Your task to perform on an android device: Search for Italian restaurants on Maps Image 0: 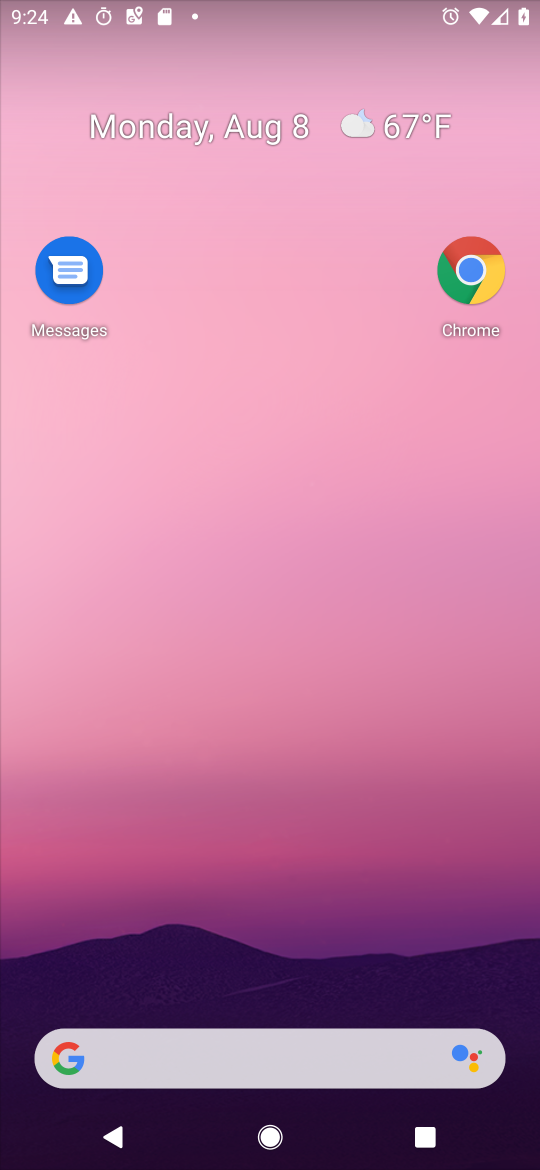
Step 0: click (205, 188)
Your task to perform on an android device: Search for Italian restaurants on Maps Image 1: 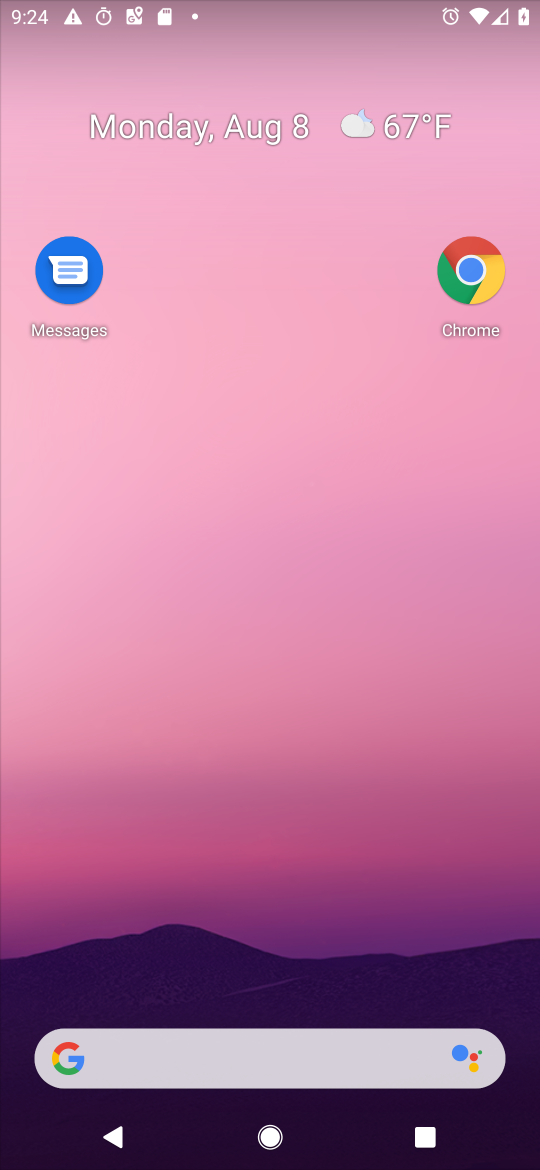
Step 1: press home button
Your task to perform on an android device: Search for Italian restaurants on Maps Image 2: 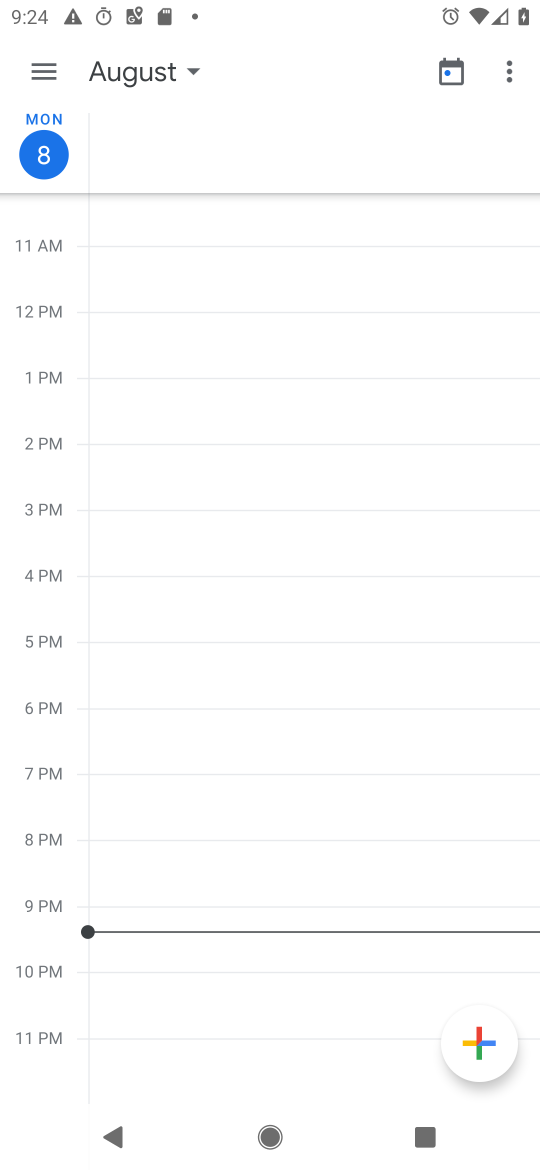
Step 2: click (289, 198)
Your task to perform on an android device: Search for Italian restaurants on Maps Image 3: 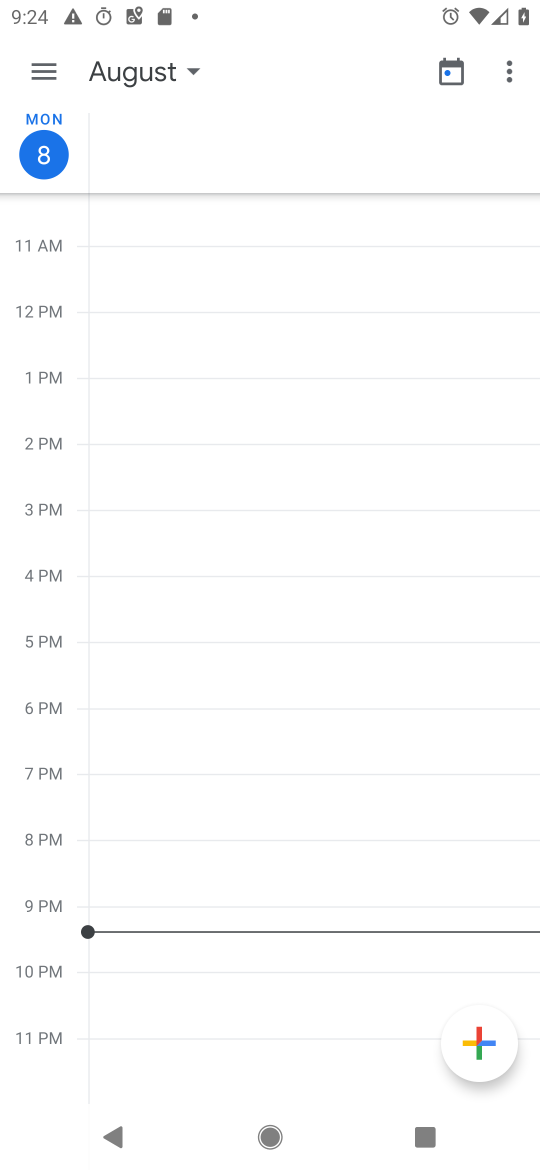
Step 3: press home button
Your task to perform on an android device: Search for Italian restaurants on Maps Image 4: 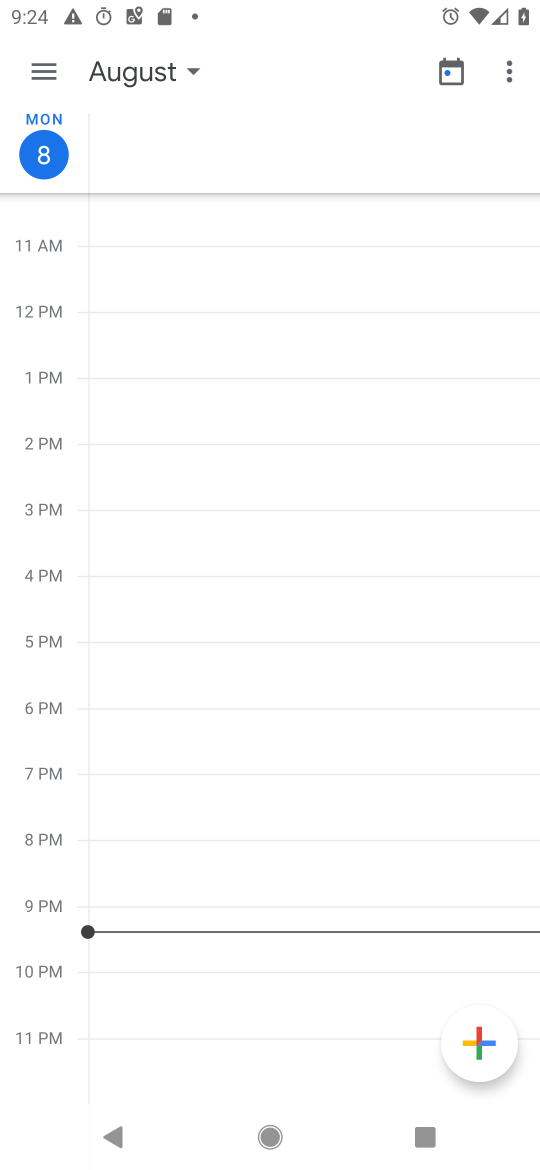
Step 4: click (418, 184)
Your task to perform on an android device: Search for Italian restaurants on Maps Image 5: 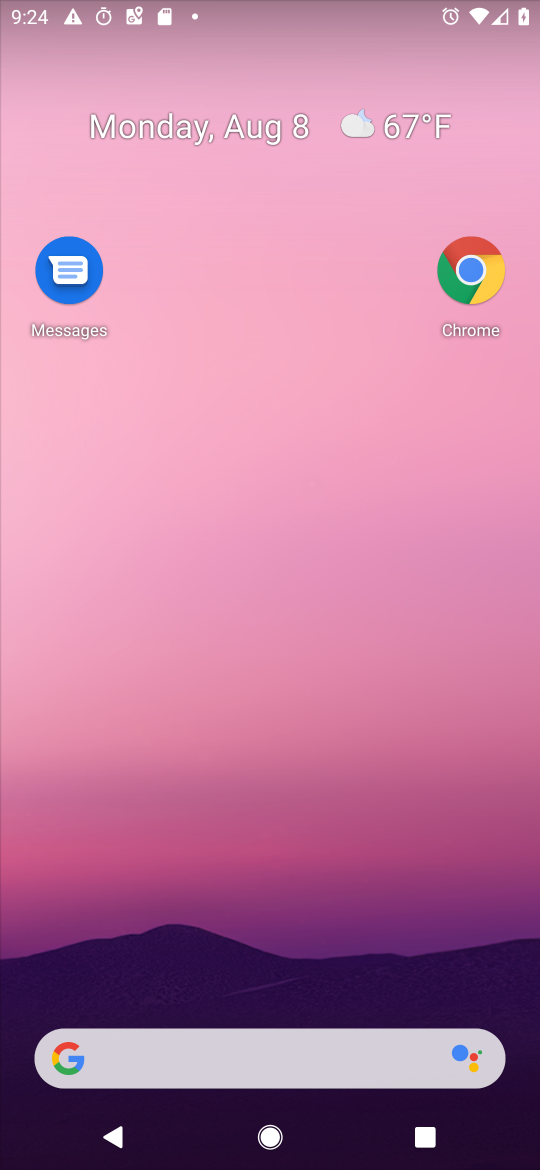
Step 5: drag from (238, 965) to (215, 35)
Your task to perform on an android device: Search for Italian restaurants on Maps Image 6: 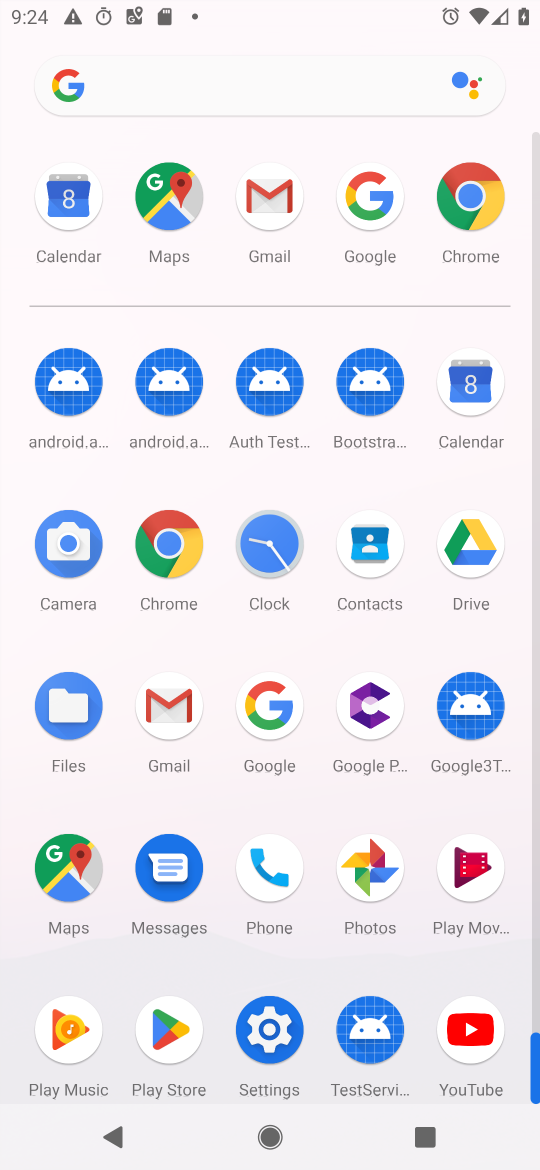
Step 6: click (172, 199)
Your task to perform on an android device: Search for Italian restaurants on Maps Image 7: 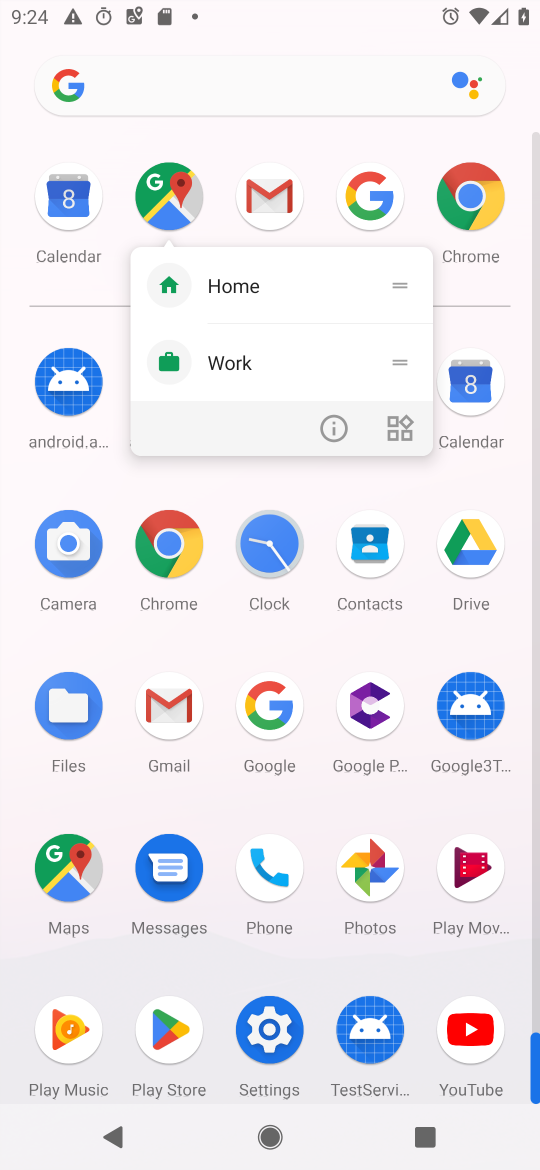
Step 7: click (316, 430)
Your task to perform on an android device: Search for Italian restaurants on Maps Image 8: 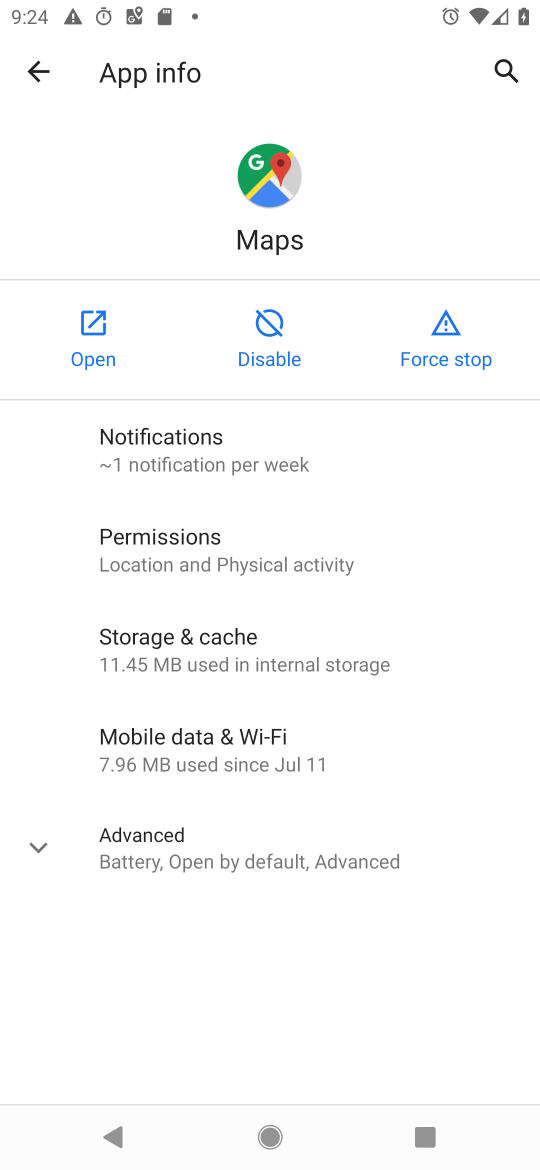
Step 8: click (94, 329)
Your task to perform on an android device: Search for Italian restaurants on Maps Image 9: 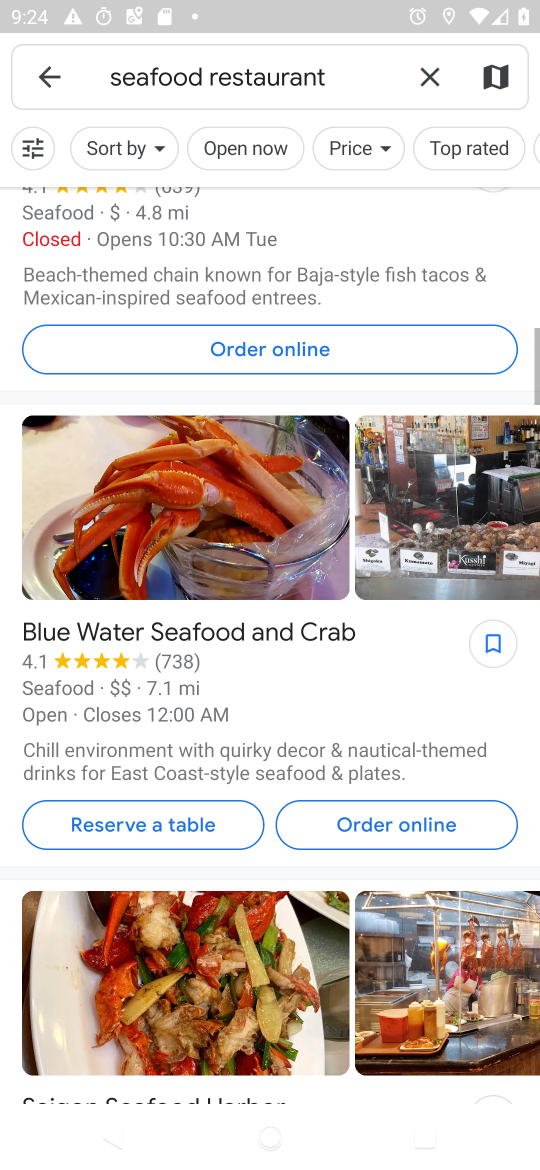
Step 9: click (410, 84)
Your task to perform on an android device: Search for Italian restaurants on Maps Image 10: 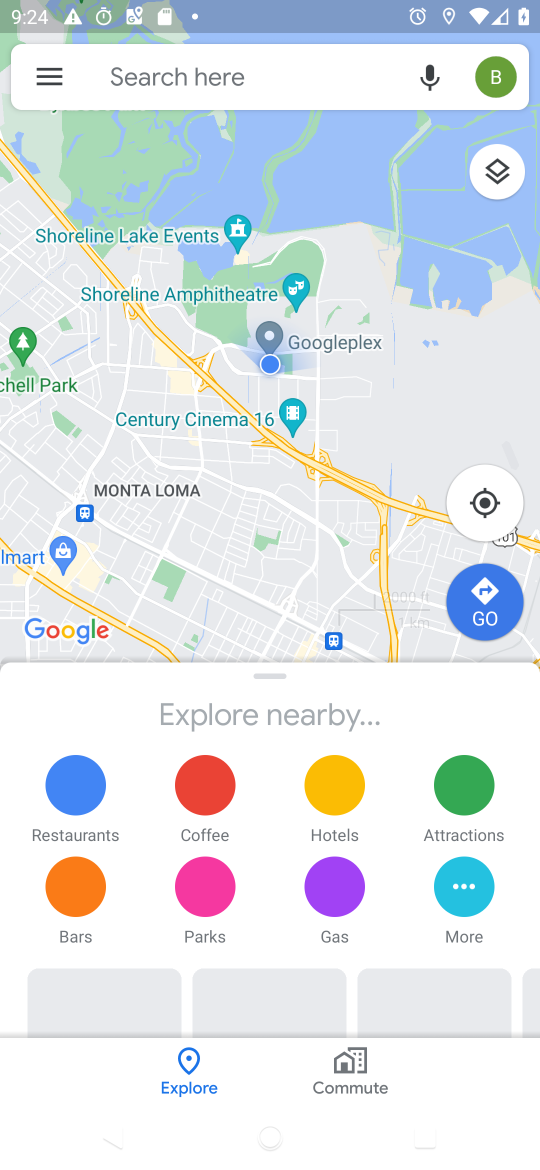
Step 10: click (103, 78)
Your task to perform on an android device: Search for Italian restaurants on Maps Image 11: 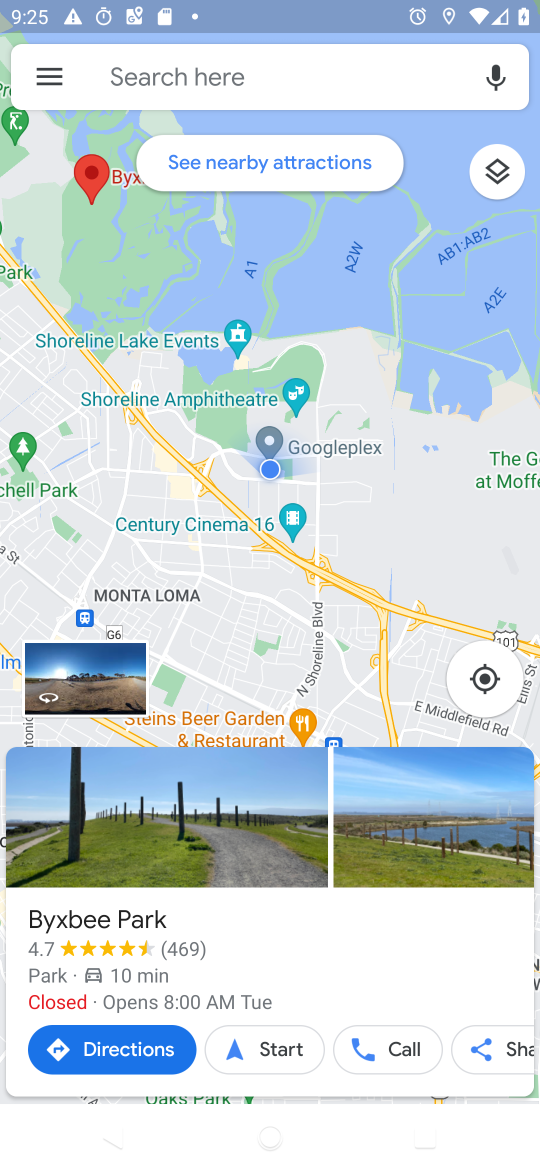
Step 11: click (179, 69)
Your task to perform on an android device: Search for Italian restaurants on Maps Image 12: 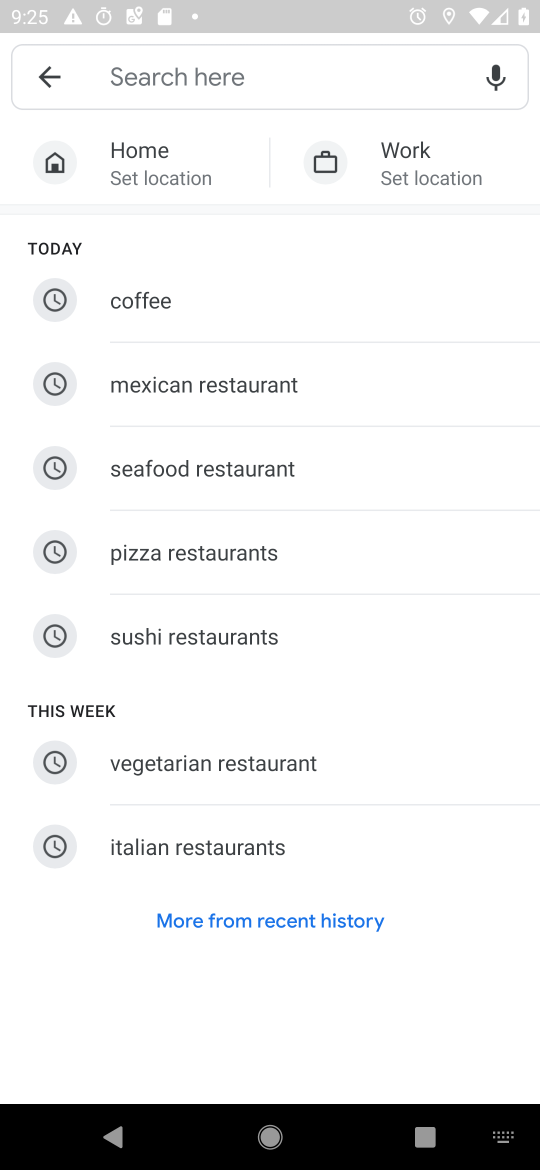
Step 12: type "Italian restaurants"
Your task to perform on an android device: Search for Italian restaurants on Maps Image 13: 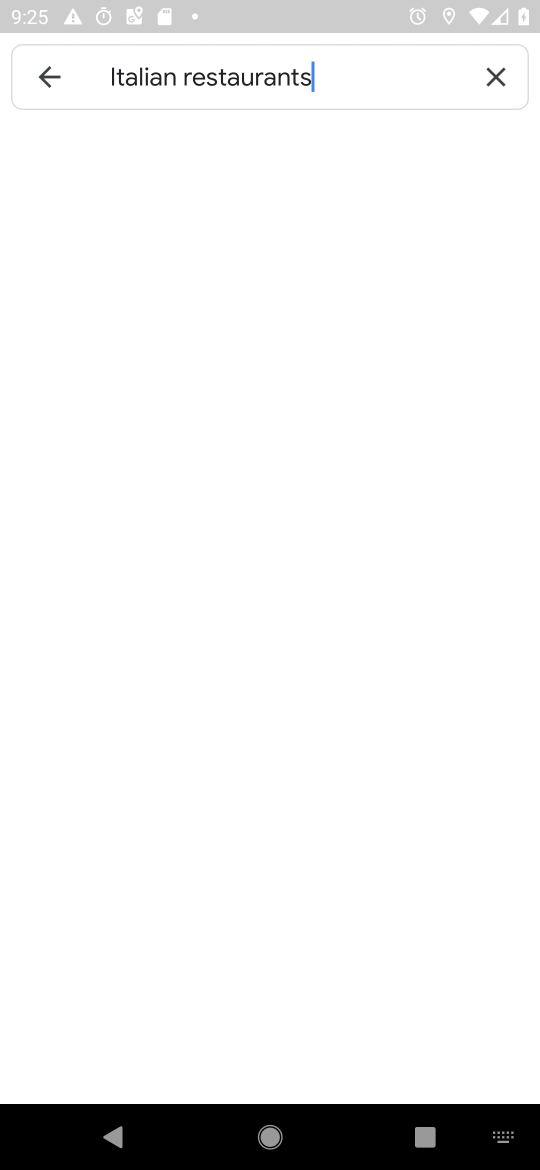
Step 13: type ""
Your task to perform on an android device: Search for Italian restaurants on Maps Image 14: 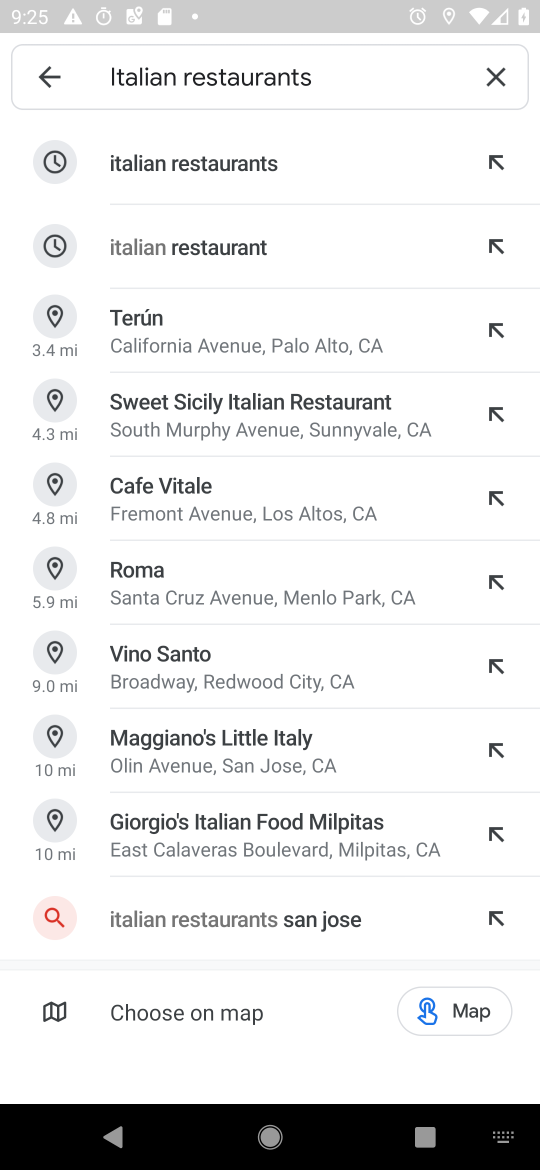
Step 14: click (206, 171)
Your task to perform on an android device: Search for Italian restaurants on Maps Image 15: 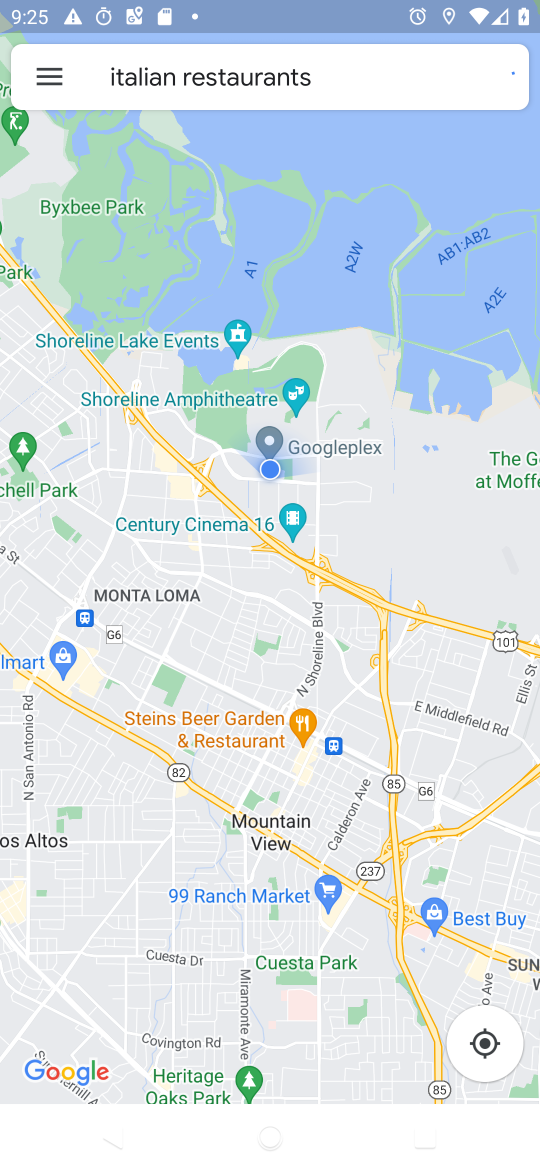
Step 15: task complete